Your task to perform on an android device: Open Chrome and go to the settings page Image 0: 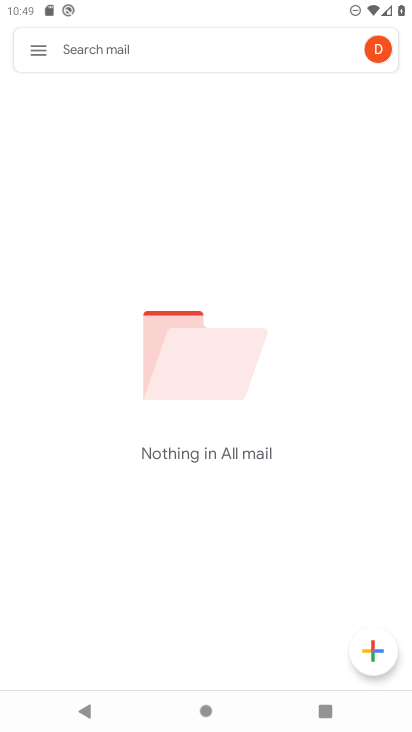
Step 0: press home button
Your task to perform on an android device: Open Chrome and go to the settings page Image 1: 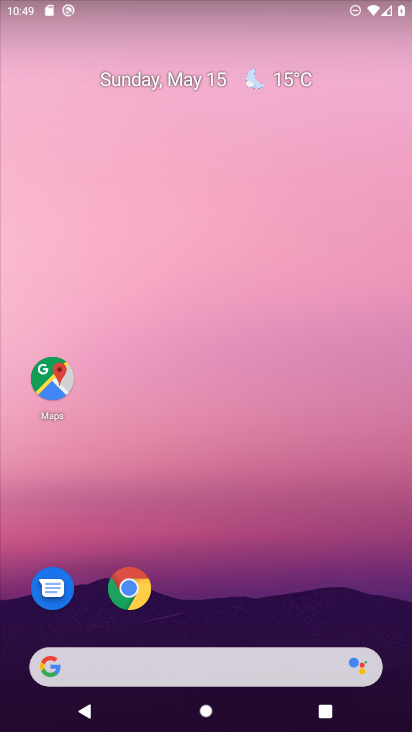
Step 1: click (120, 580)
Your task to perform on an android device: Open Chrome and go to the settings page Image 2: 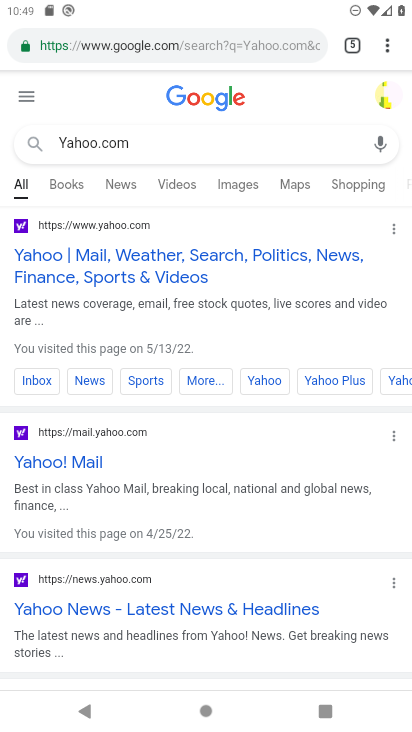
Step 2: click (389, 43)
Your task to perform on an android device: Open Chrome and go to the settings page Image 3: 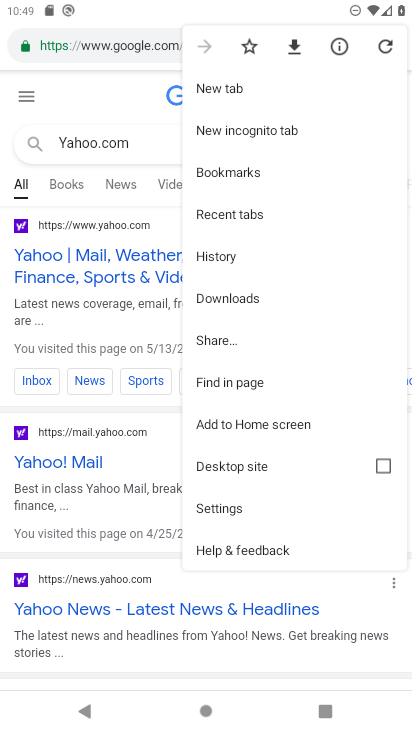
Step 3: click (220, 515)
Your task to perform on an android device: Open Chrome and go to the settings page Image 4: 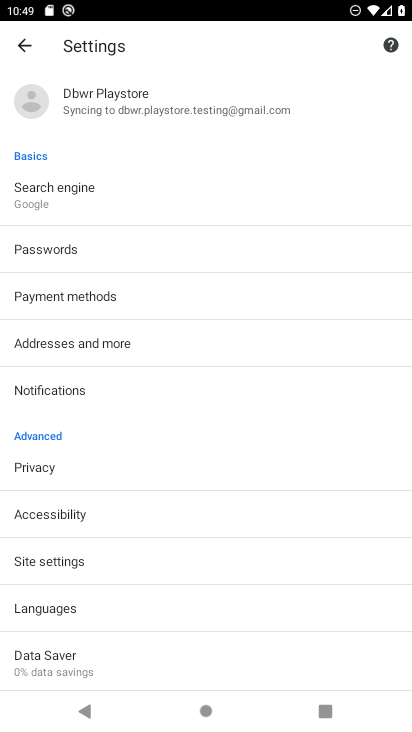
Step 4: task complete